Your task to perform on an android device: turn on improve location accuracy Image 0: 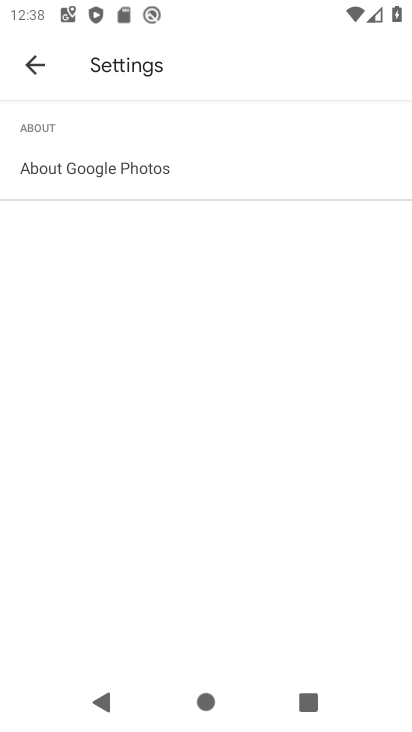
Step 0: click (40, 68)
Your task to perform on an android device: turn on improve location accuracy Image 1: 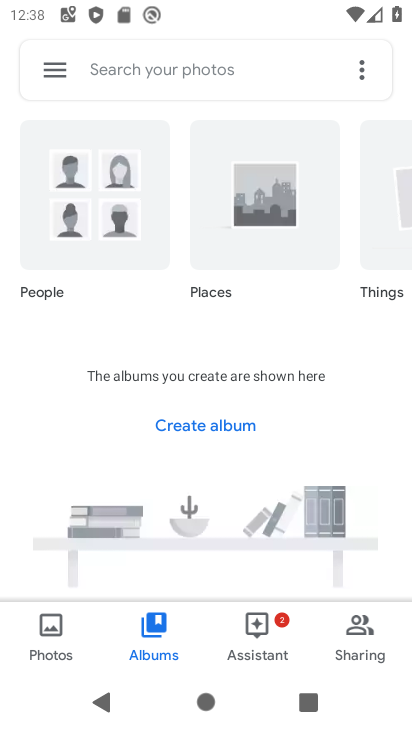
Step 1: press home button
Your task to perform on an android device: turn on improve location accuracy Image 2: 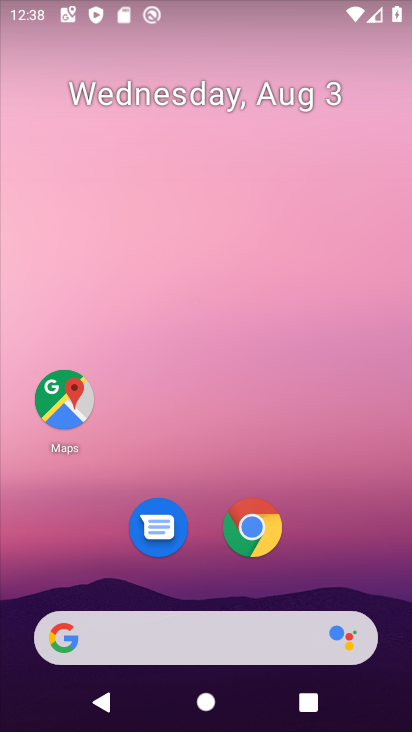
Step 2: drag from (208, 547) to (217, 298)
Your task to perform on an android device: turn on improve location accuracy Image 3: 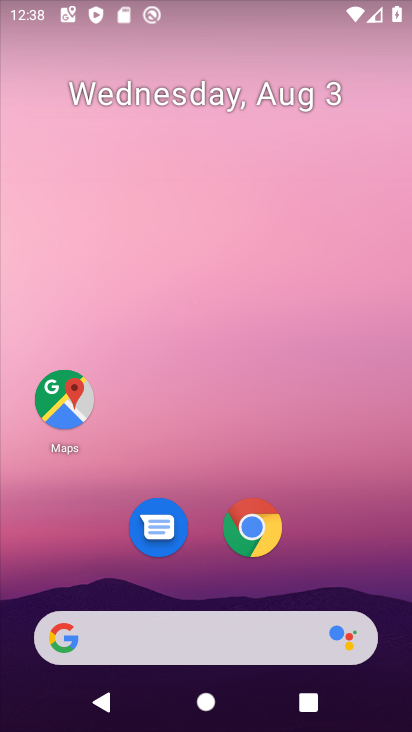
Step 3: drag from (207, 571) to (209, 274)
Your task to perform on an android device: turn on improve location accuracy Image 4: 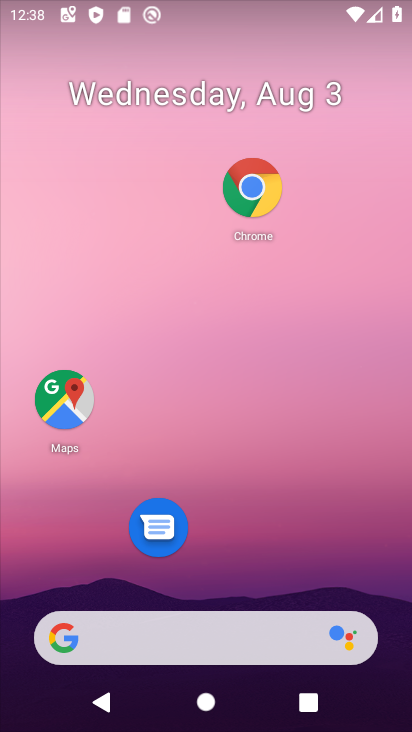
Step 4: click (291, 563)
Your task to perform on an android device: turn on improve location accuracy Image 5: 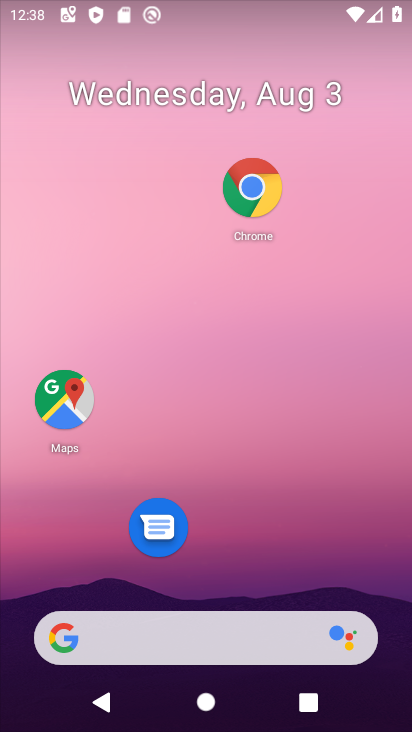
Step 5: drag from (256, 580) to (273, 64)
Your task to perform on an android device: turn on improve location accuracy Image 6: 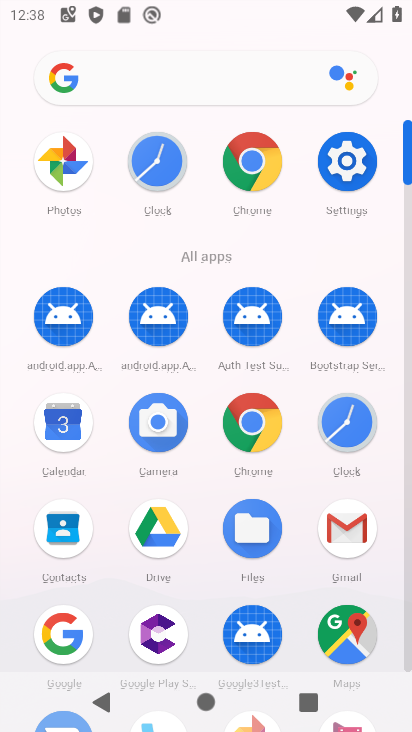
Step 6: click (338, 198)
Your task to perform on an android device: turn on improve location accuracy Image 7: 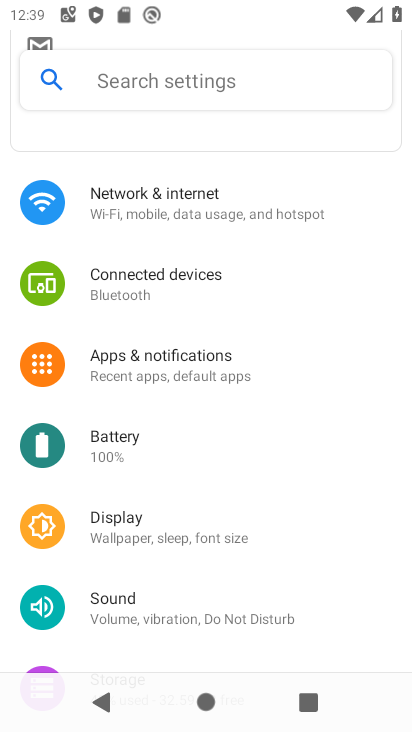
Step 7: drag from (178, 455) to (229, 235)
Your task to perform on an android device: turn on improve location accuracy Image 8: 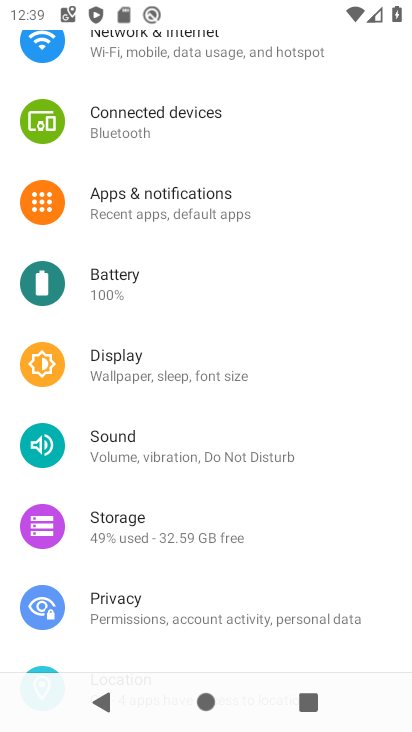
Step 8: drag from (165, 598) to (215, 397)
Your task to perform on an android device: turn on improve location accuracy Image 9: 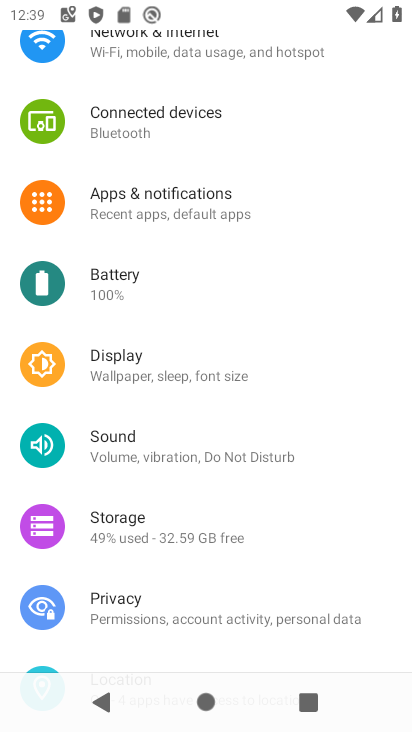
Step 9: drag from (160, 570) to (201, 307)
Your task to perform on an android device: turn on improve location accuracy Image 10: 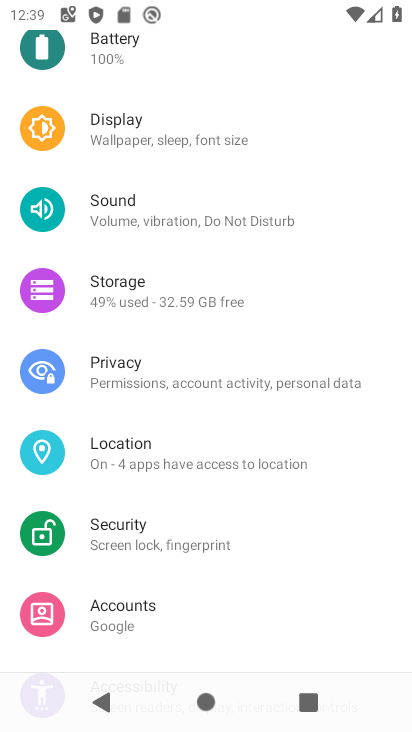
Step 10: click (156, 458)
Your task to perform on an android device: turn on improve location accuracy Image 11: 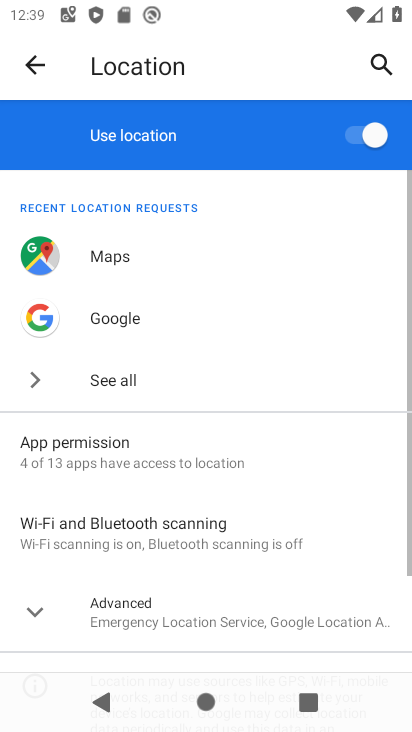
Step 11: click (116, 620)
Your task to perform on an android device: turn on improve location accuracy Image 12: 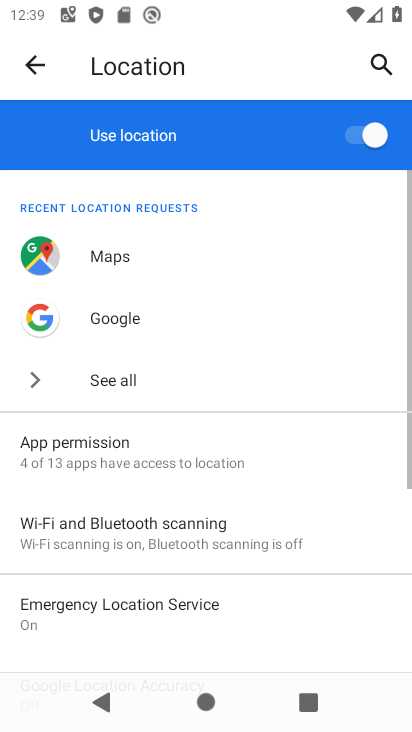
Step 12: drag from (173, 623) to (229, 420)
Your task to perform on an android device: turn on improve location accuracy Image 13: 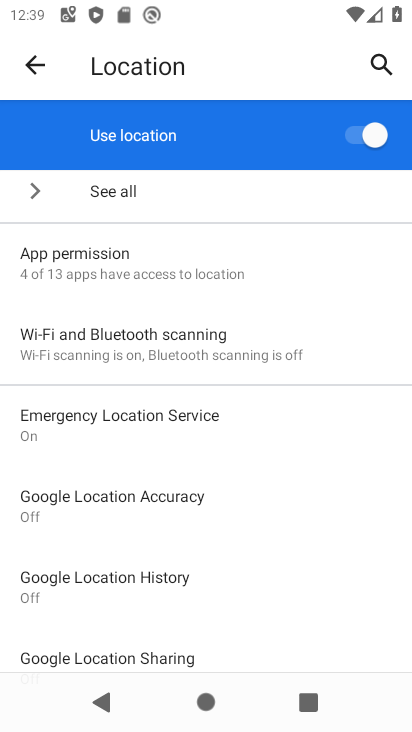
Step 13: drag from (129, 580) to (162, 438)
Your task to perform on an android device: turn on improve location accuracy Image 14: 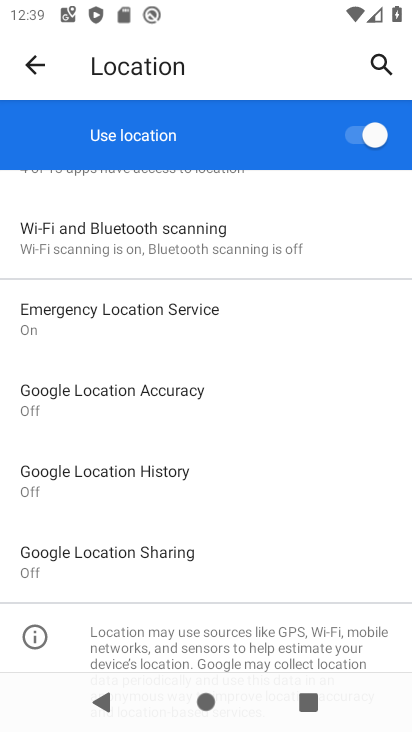
Step 14: click (111, 389)
Your task to perform on an android device: turn on improve location accuracy Image 15: 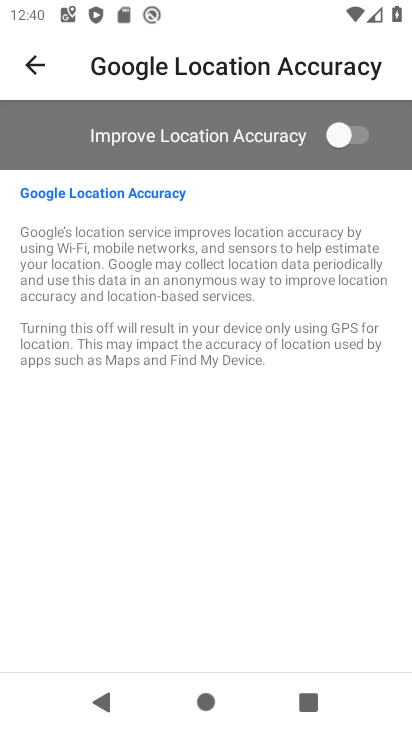
Step 15: click (372, 143)
Your task to perform on an android device: turn on improve location accuracy Image 16: 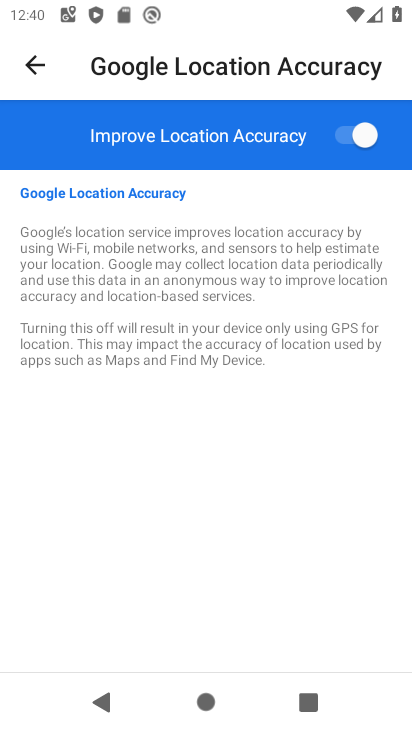
Step 16: task complete